Your task to perform on an android device: turn off smart reply in the gmail app Image 0: 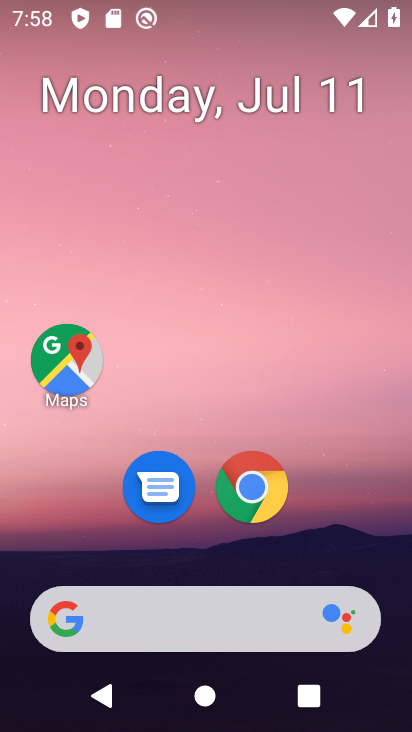
Step 0: drag from (223, 518) to (284, 9)
Your task to perform on an android device: turn off smart reply in the gmail app Image 1: 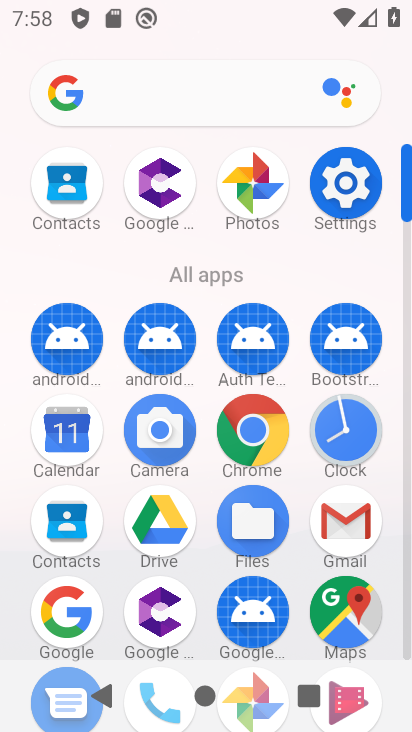
Step 1: click (353, 517)
Your task to perform on an android device: turn off smart reply in the gmail app Image 2: 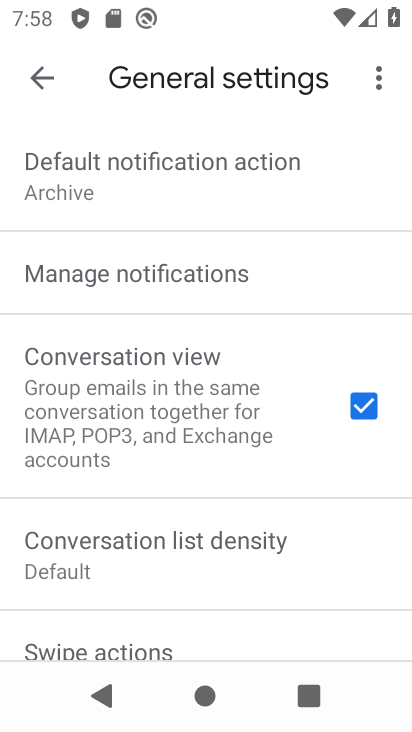
Step 2: drag from (157, 591) to (213, 127)
Your task to perform on an android device: turn off smart reply in the gmail app Image 3: 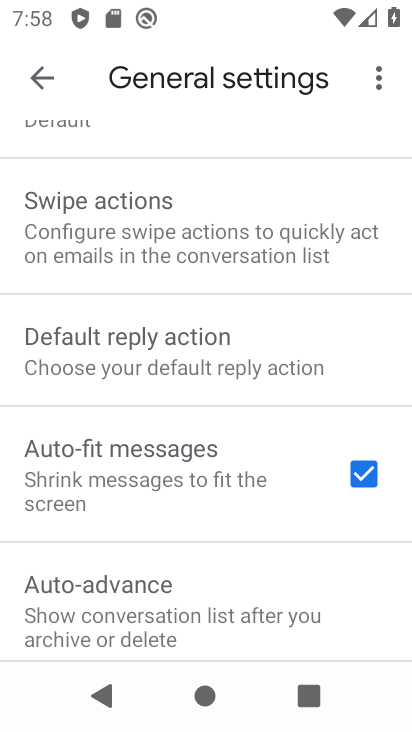
Step 3: drag from (146, 627) to (192, 204)
Your task to perform on an android device: turn off smart reply in the gmail app Image 4: 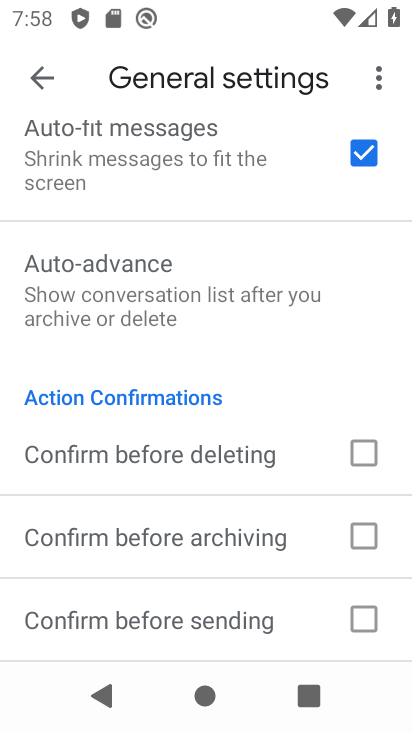
Step 4: drag from (200, 236) to (152, 674)
Your task to perform on an android device: turn off smart reply in the gmail app Image 5: 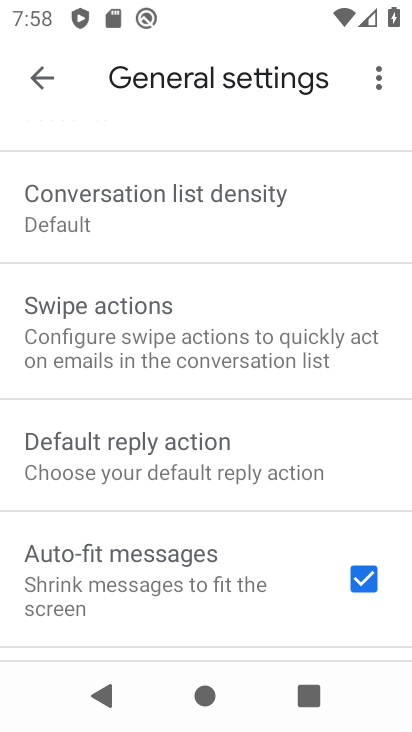
Step 5: drag from (167, 277) to (155, 723)
Your task to perform on an android device: turn off smart reply in the gmail app Image 6: 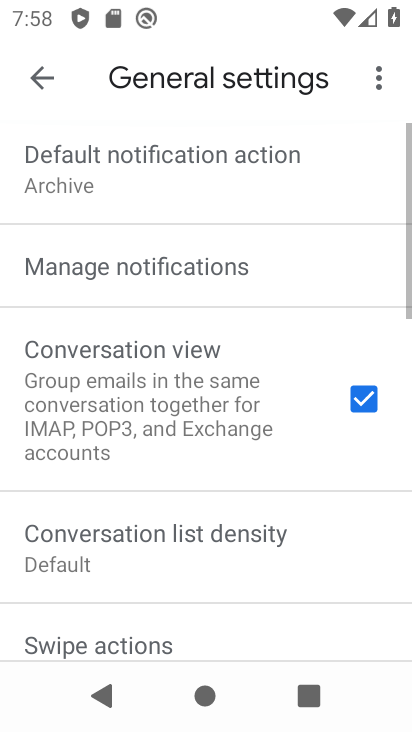
Step 6: drag from (166, 236) to (136, 711)
Your task to perform on an android device: turn off smart reply in the gmail app Image 7: 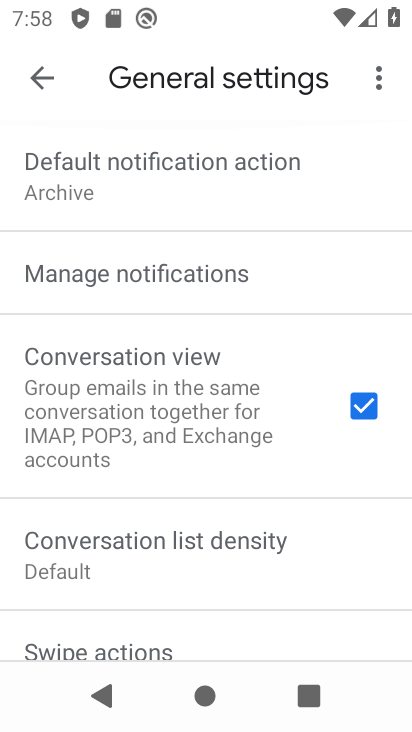
Step 7: drag from (135, 619) to (169, 78)
Your task to perform on an android device: turn off smart reply in the gmail app Image 8: 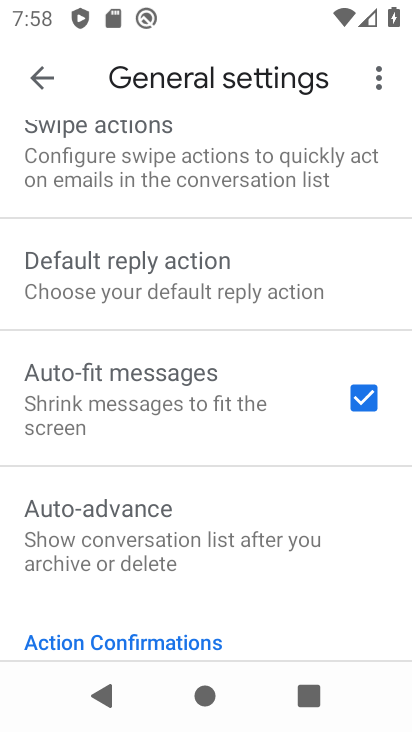
Step 8: drag from (127, 546) to (213, 13)
Your task to perform on an android device: turn off smart reply in the gmail app Image 9: 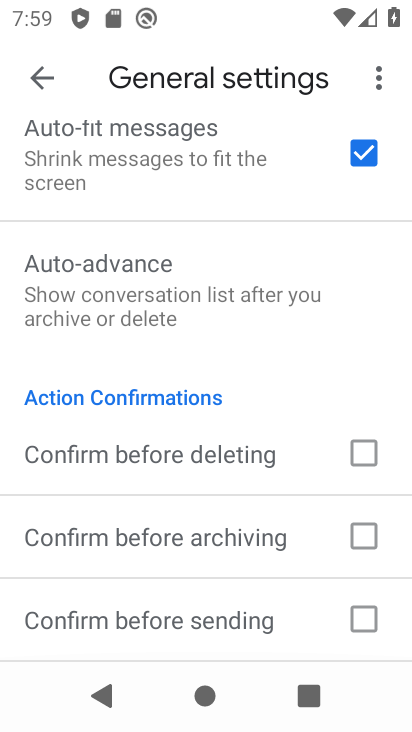
Step 9: drag from (143, 539) to (204, 7)
Your task to perform on an android device: turn off smart reply in the gmail app Image 10: 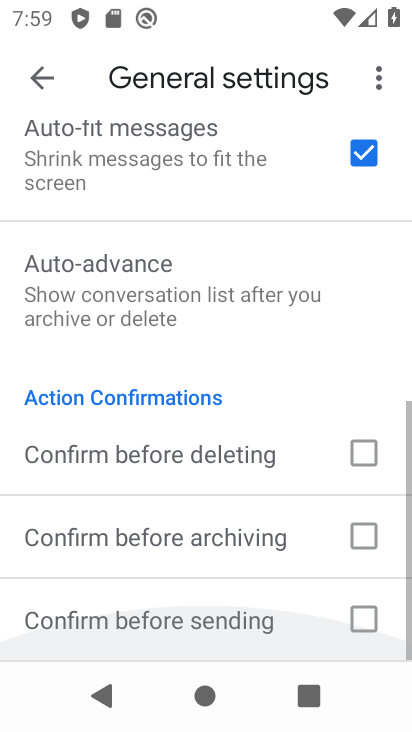
Step 10: drag from (180, 168) to (164, 728)
Your task to perform on an android device: turn off smart reply in the gmail app Image 11: 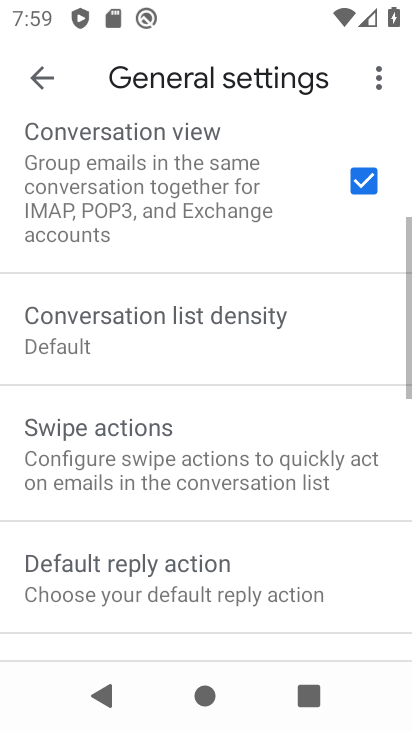
Step 11: drag from (167, 120) to (170, 654)
Your task to perform on an android device: turn off smart reply in the gmail app Image 12: 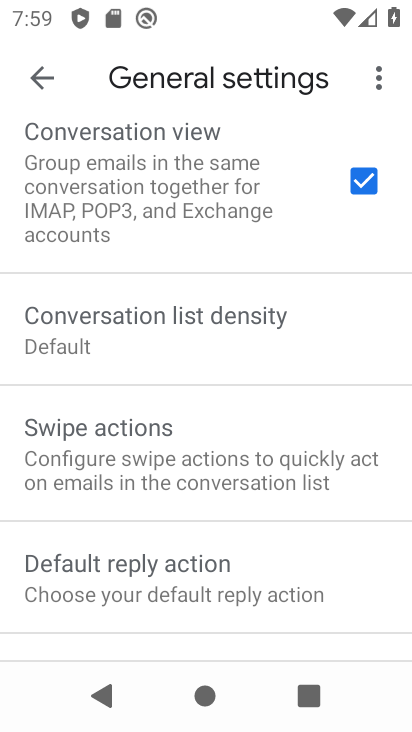
Step 12: drag from (163, 282) to (162, 677)
Your task to perform on an android device: turn off smart reply in the gmail app Image 13: 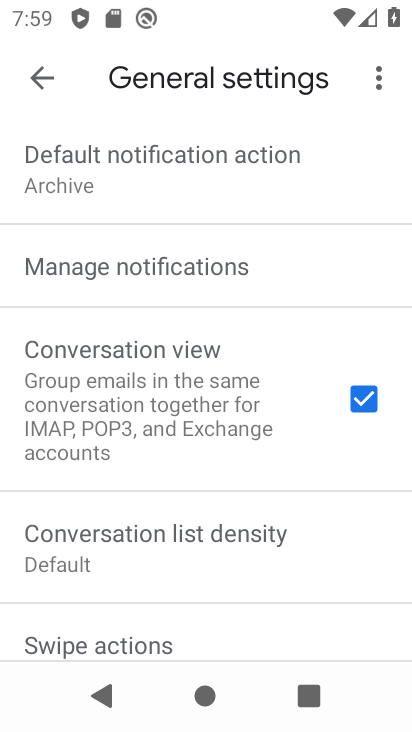
Step 13: drag from (135, 208) to (109, 659)
Your task to perform on an android device: turn off smart reply in the gmail app Image 14: 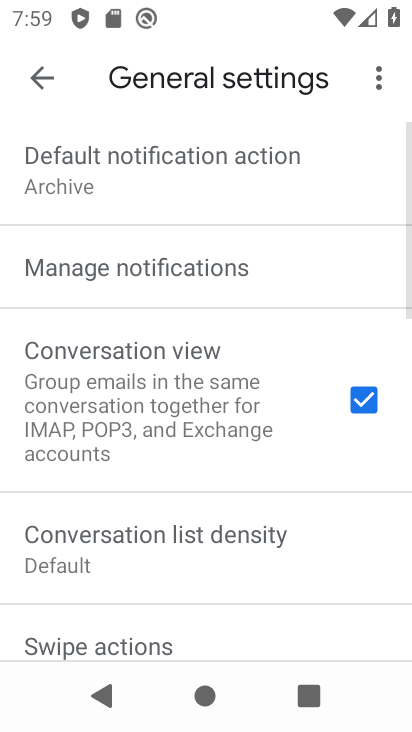
Step 14: click (30, 74)
Your task to perform on an android device: turn off smart reply in the gmail app Image 15: 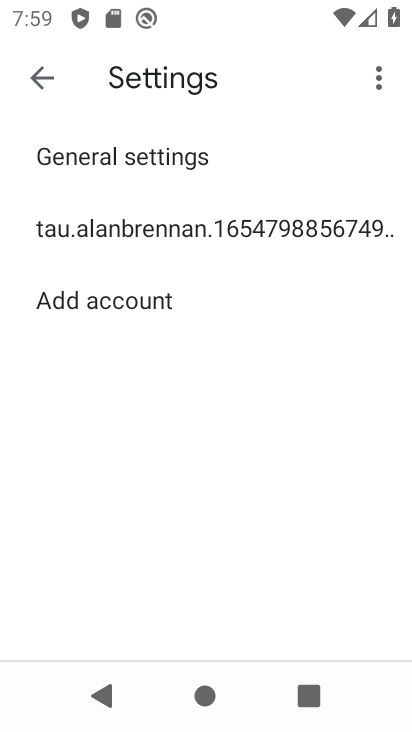
Step 15: click (256, 241)
Your task to perform on an android device: turn off smart reply in the gmail app Image 16: 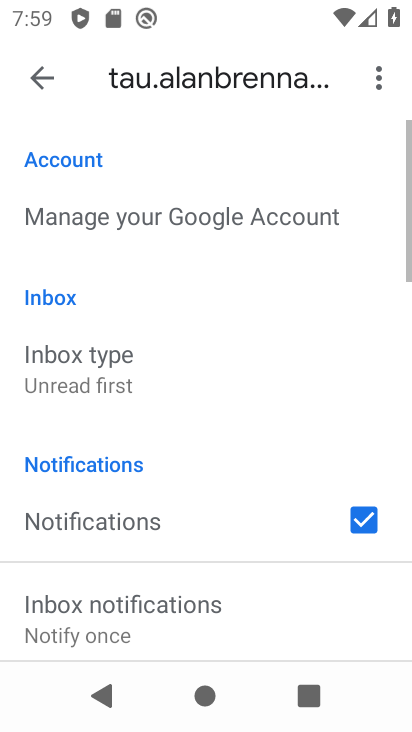
Step 16: drag from (190, 604) to (279, 27)
Your task to perform on an android device: turn off smart reply in the gmail app Image 17: 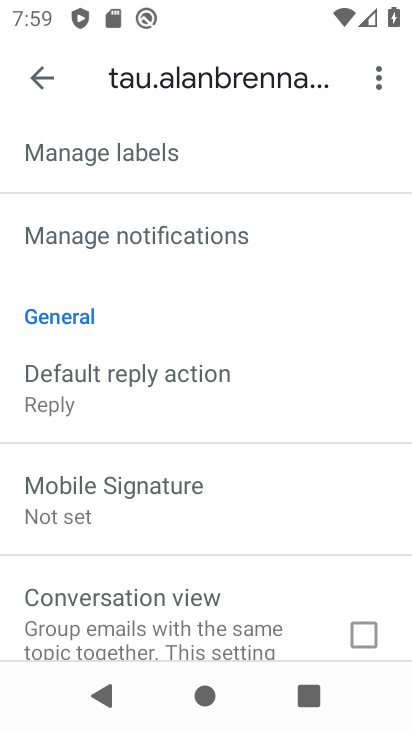
Step 17: drag from (178, 629) to (287, 132)
Your task to perform on an android device: turn off smart reply in the gmail app Image 18: 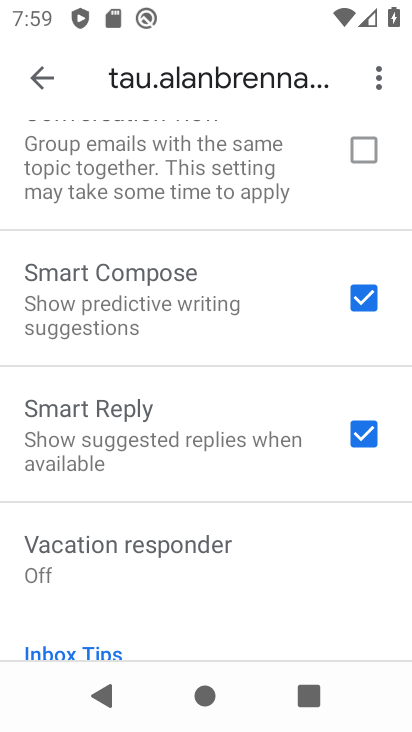
Step 18: click (359, 449)
Your task to perform on an android device: turn off smart reply in the gmail app Image 19: 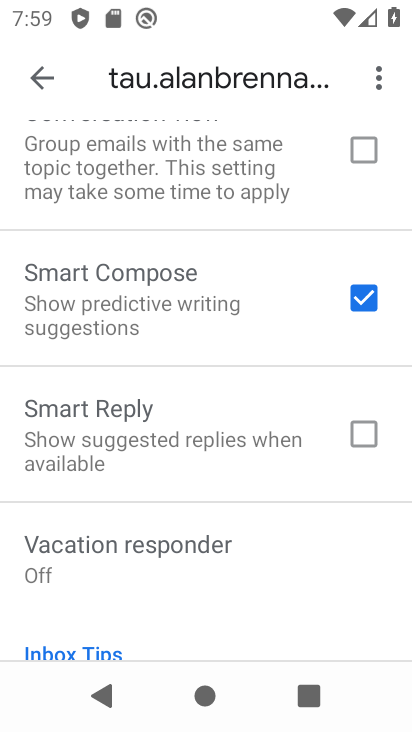
Step 19: task complete